Your task to perform on an android device: Show me popular videos on Youtube Image 0: 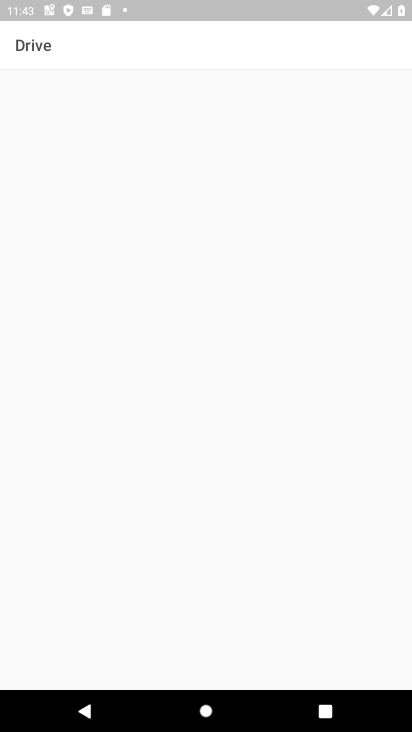
Step 0: press home button
Your task to perform on an android device: Show me popular videos on Youtube Image 1: 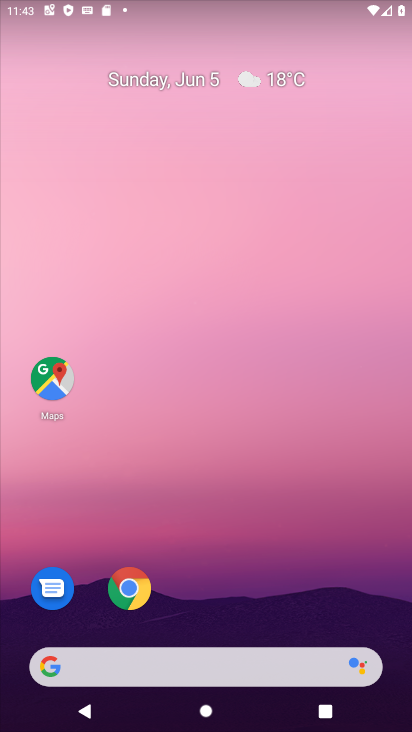
Step 1: drag from (258, 603) to (211, 174)
Your task to perform on an android device: Show me popular videos on Youtube Image 2: 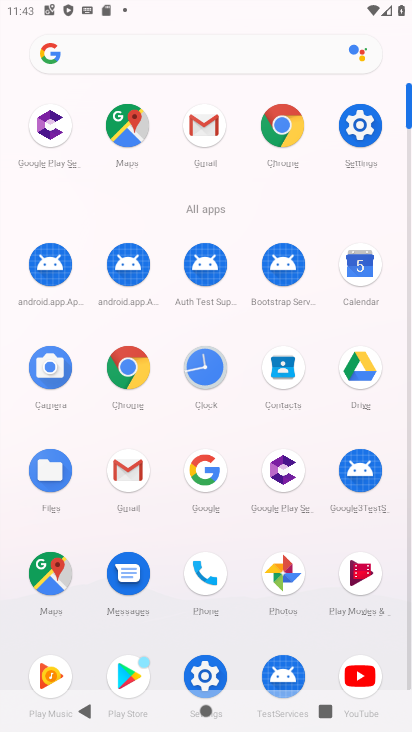
Step 2: click (364, 682)
Your task to perform on an android device: Show me popular videos on Youtube Image 3: 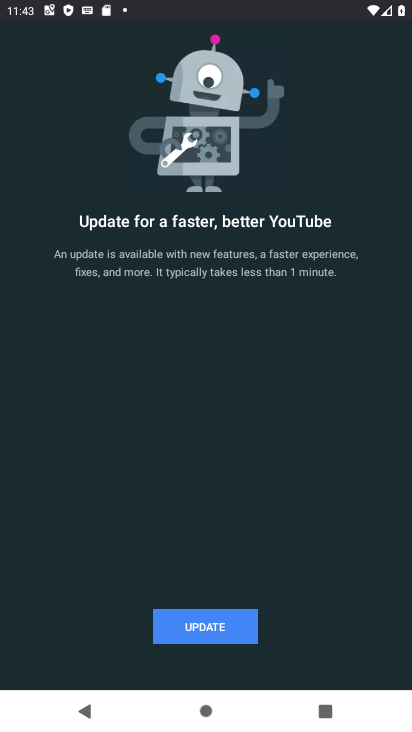
Step 3: click (241, 632)
Your task to perform on an android device: Show me popular videos on Youtube Image 4: 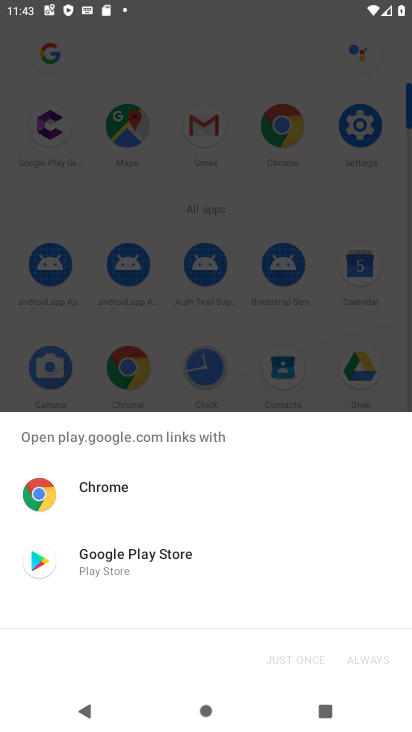
Step 4: click (245, 553)
Your task to perform on an android device: Show me popular videos on Youtube Image 5: 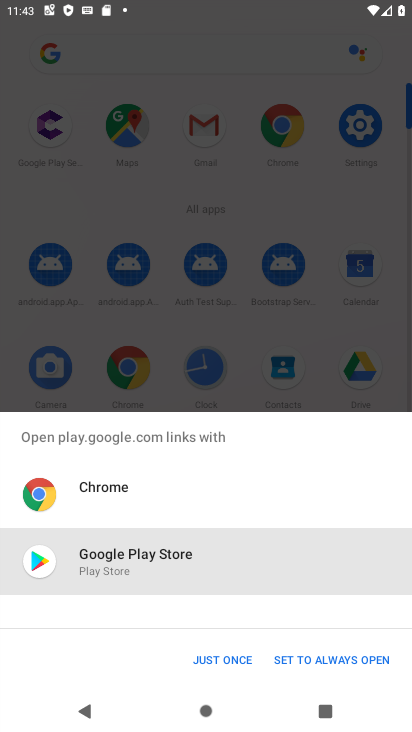
Step 5: click (216, 669)
Your task to perform on an android device: Show me popular videos on Youtube Image 6: 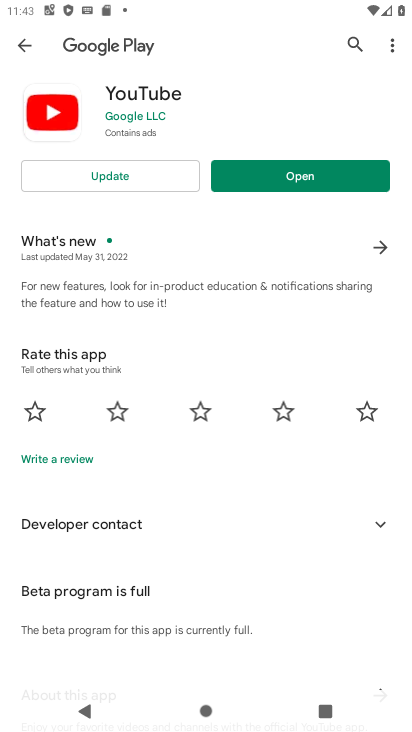
Step 6: click (133, 175)
Your task to perform on an android device: Show me popular videos on Youtube Image 7: 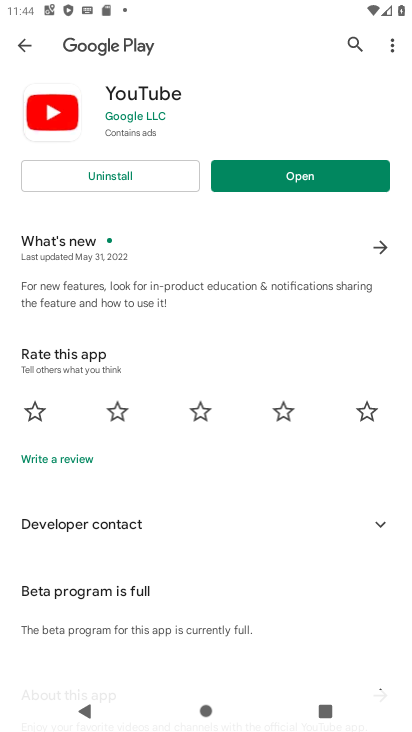
Step 7: click (281, 186)
Your task to perform on an android device: Show me popular videos on Youtube Image 8: 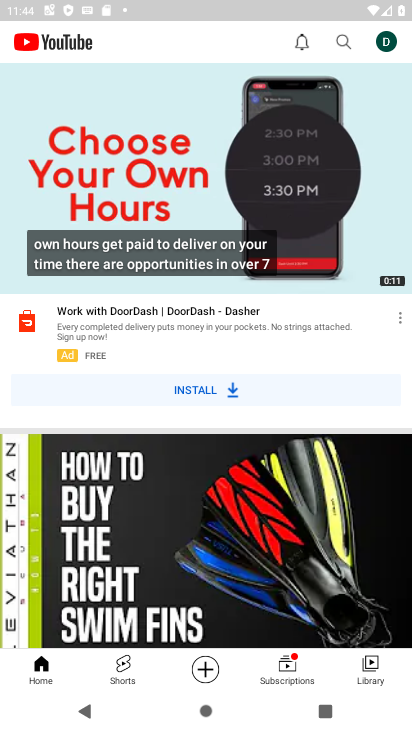
Step 8: click (267, 673)
Your task to perform on an android device: Show me popular videos on Youtube Image 9: 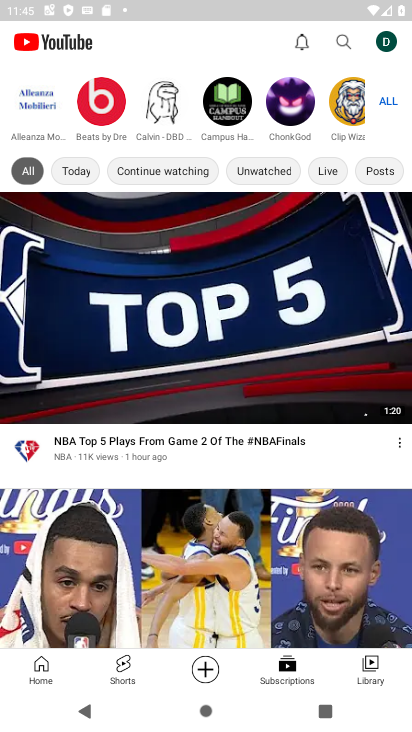
Step 9: click (373, 674)
Your task to perform on an android device: Show me popular videos on Youtube Image 10: 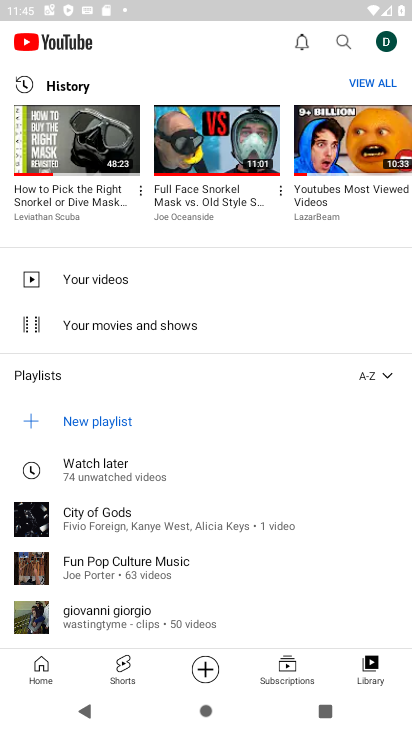
Step 10: task complete